Your task to perform on an android device: Search for Italian restaurants on Maps Image 0: 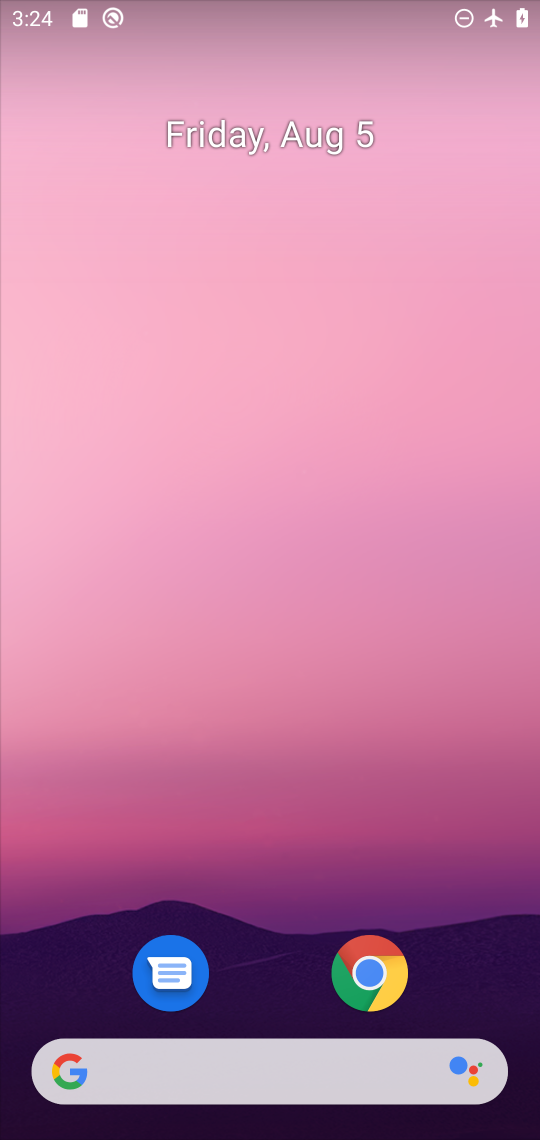
Step 0: drag from (245, 1010) to (242, 77)
Your task to perform on an android device: Search for Italian restaurants on Maps Image 1: 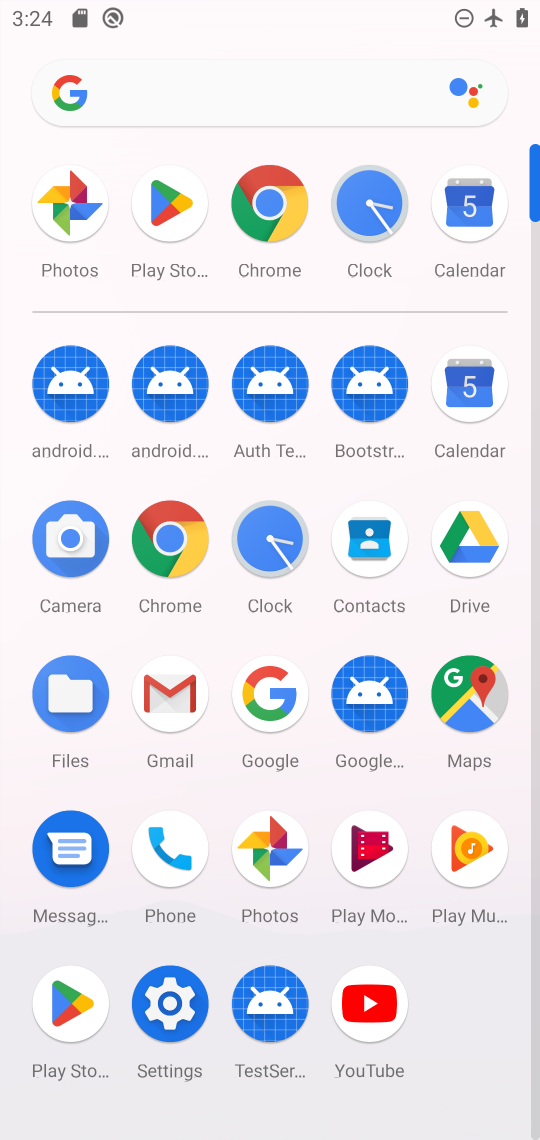
Step 1: click (448, 723)
Your task to perform on an android device: Search for Italian restaurants on Maps Image 2: 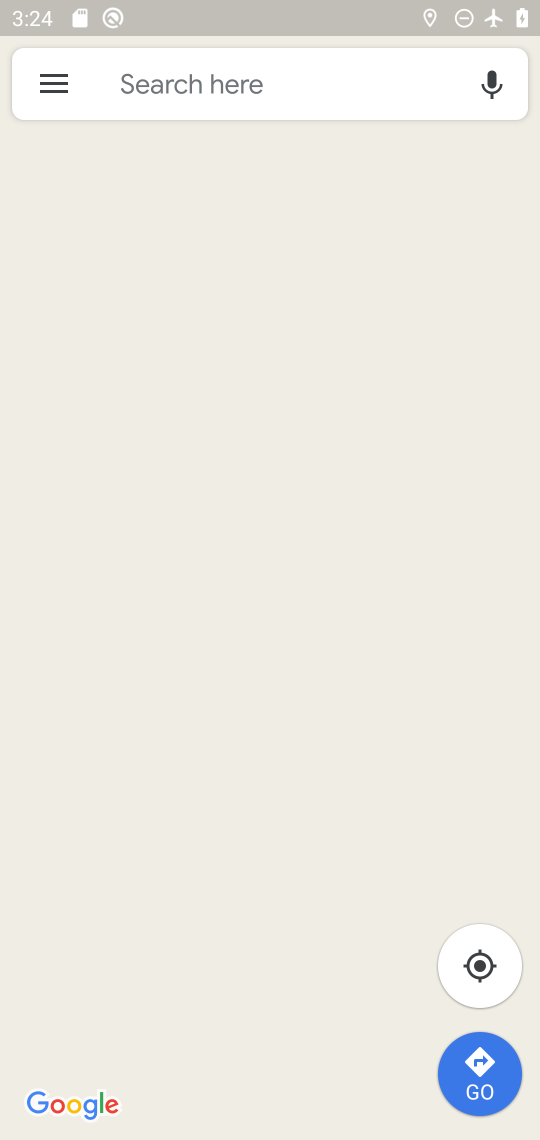
Step 2: click (195, 88)
Your task to perform on an android device: Search for Italian restaurants on Maps Image 3: 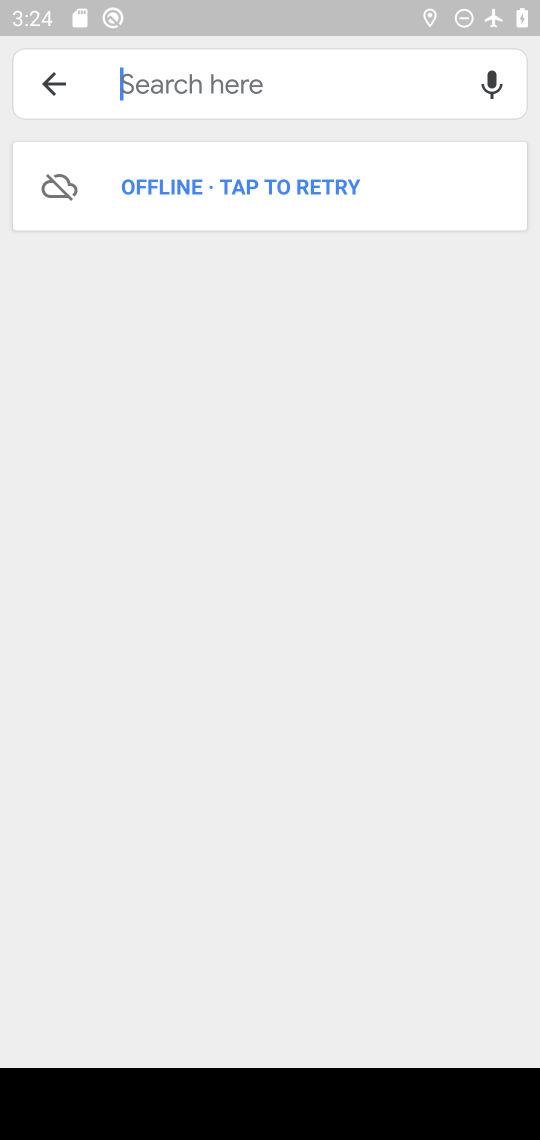
Step 3: click (178, 190)
Your task to perform on an android device: Search for Italian restaurants on Maps Image 4: 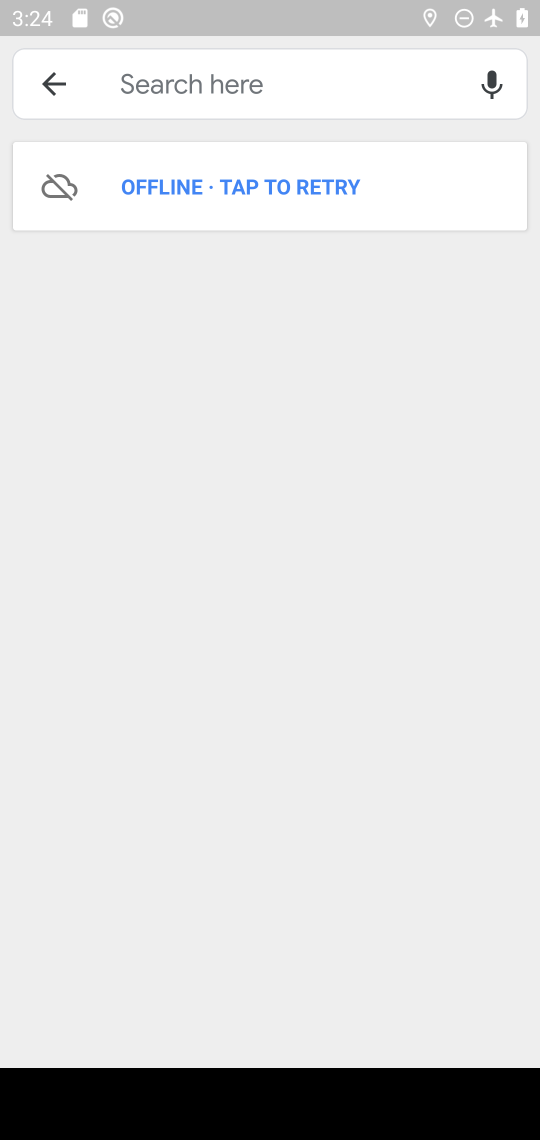
Step 4: task complete